Your task to perform on an android device: turn off sleep mode Image 0: 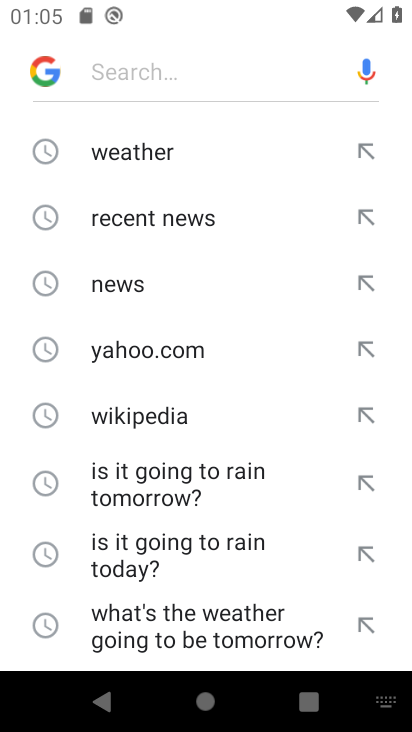
Step 0: press home button
Your task to perform on an android device: turn off sleep mode Image 1: 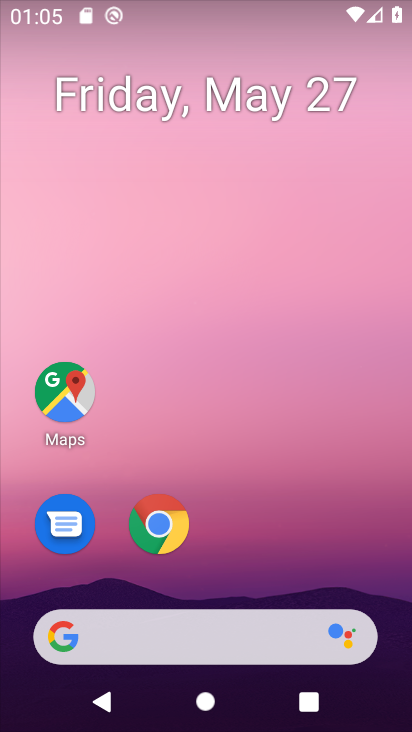
Step 1: drag from (284, 540) to (250, 30)
Your task to perform on an android device: turn off sleep mode Image 2: 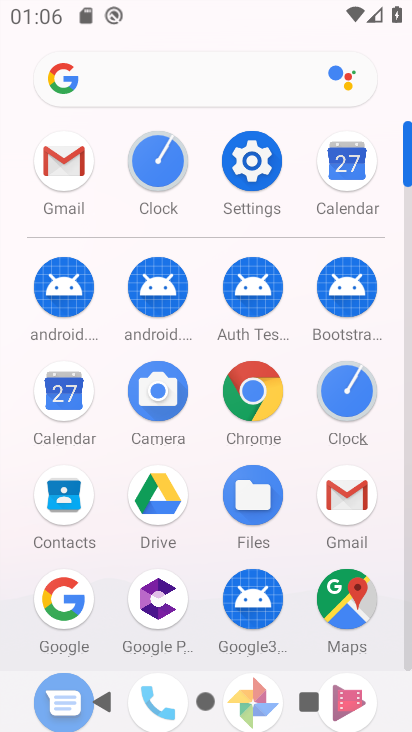
Step 2: click (256, 159)
Your task to perform on an android device: turn off sleep mode Image 3: 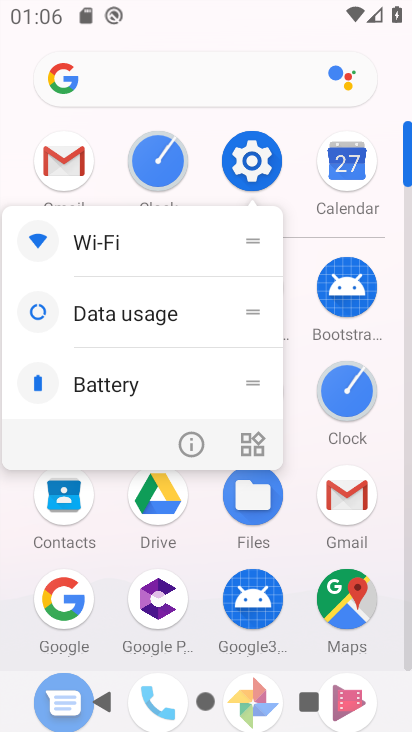
Step 3: click (256, 157)
Your task to perform on an android device: turn off sleep mode Image 4: 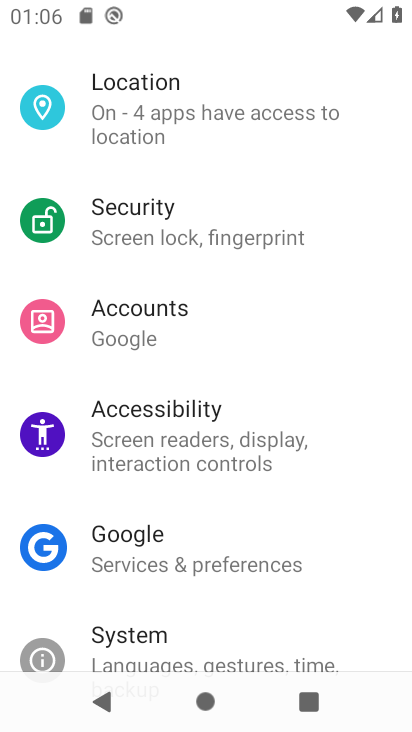
Step 4: drag from (221, 173) to (216, 700)
Your task to perform on an android device: turn off sleep mode Image 5: 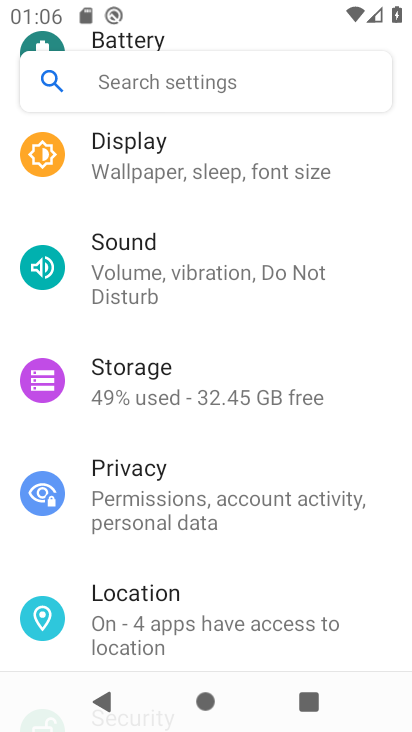
Step 5: click (239, 166)
Your task to perform on an android device: turn off sleep mode Image 6: 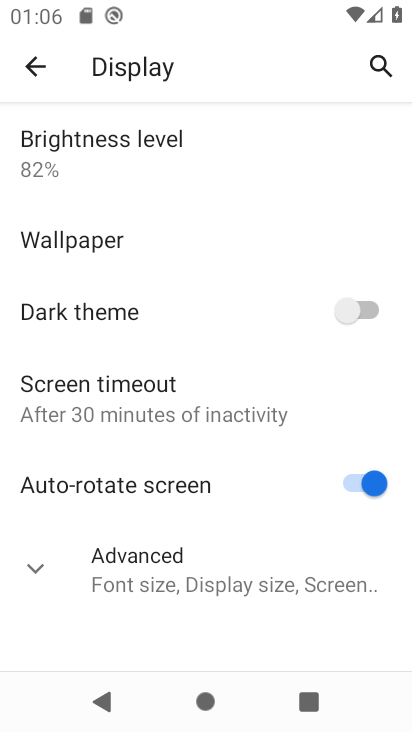
Step 6: click (35, 567)
Your task to perform on an android device: turn off sleep mode Image 7: 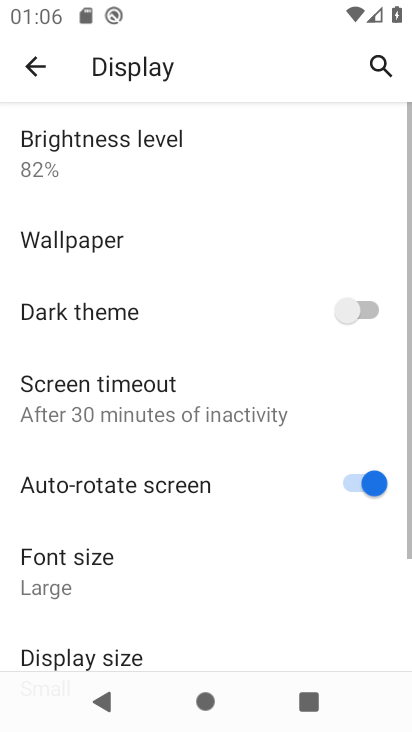
Step 7: task complete